Your task to perform on an android device: all mails in gmail Image 0: 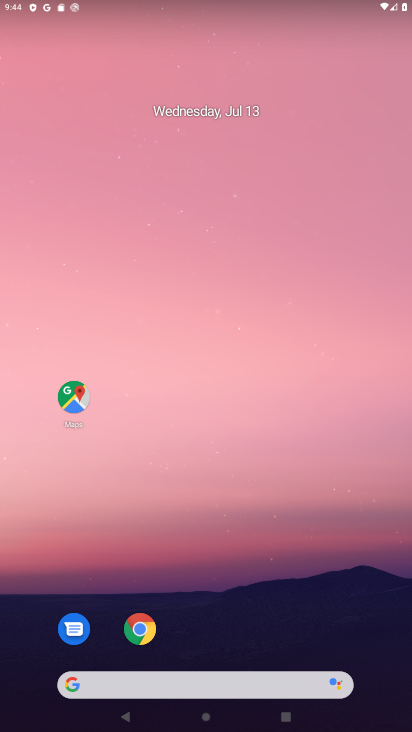
Step 0: drag from (249, 645) to (251, 59)
Your task to perform on an android device: all mails in gmail Image 1: 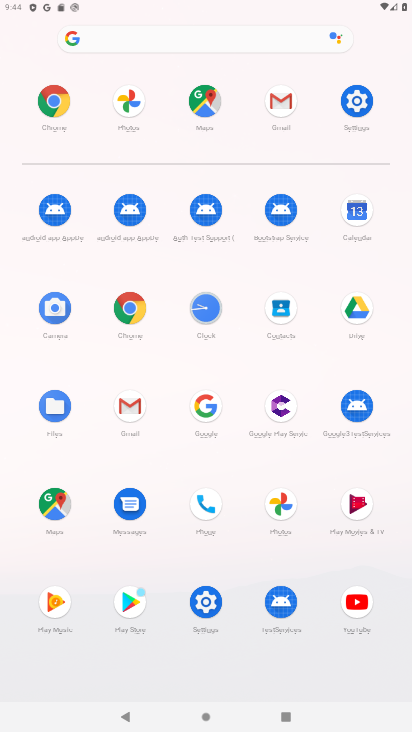
Step 1: click (133, 415)
Your task to perform on an android device: all mails in gmail Image 2: 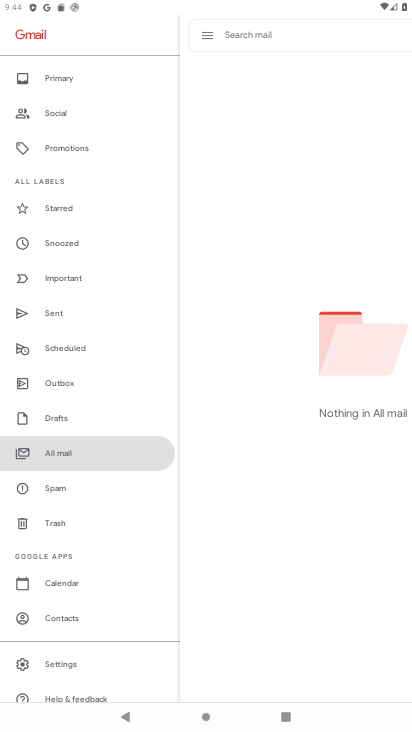
Step 2: click (50, 457)
Your task to perform on an android device: all mails in gmail Image 3: 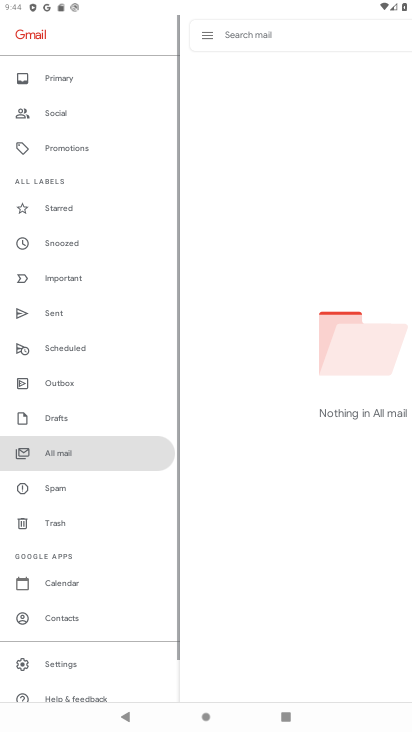
Step 3: task complete